Your task to perform on an android device: set the timer Image 0: 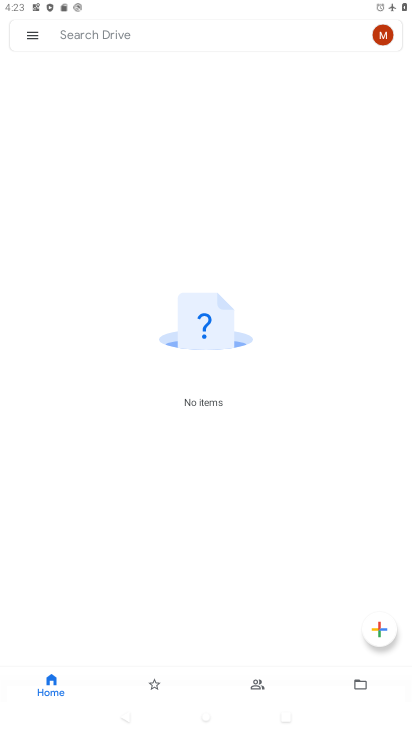
Step 0: press home button
Your task to perform on an android device: set the timer Image 1: 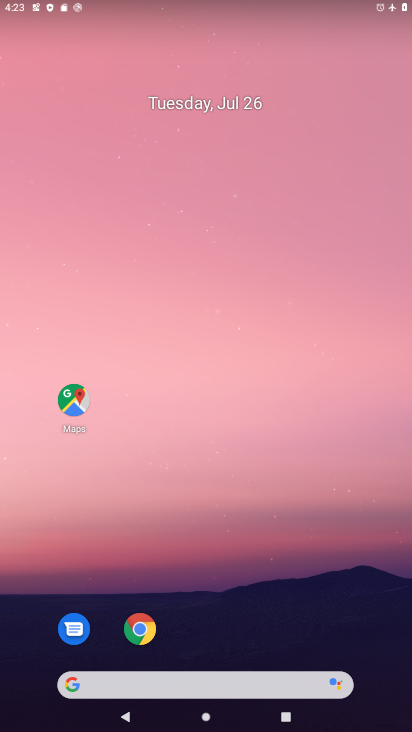
Step 1: drag from (221, 709) to (232, 164)
Your task to perform on an android device: set the timer Image 2: 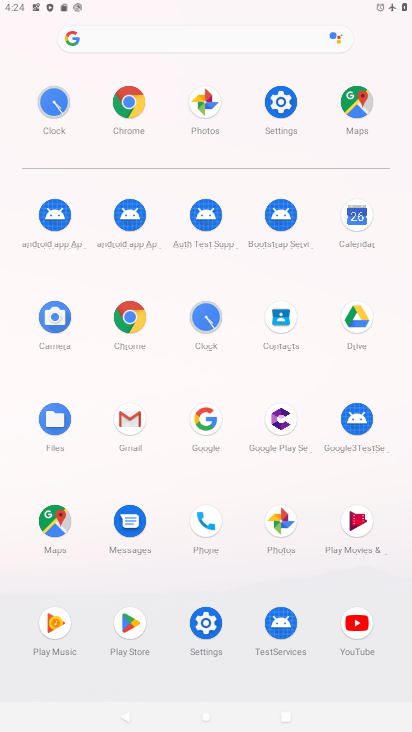
Step 2: click (210, 313)
Your task to perform on an android device: set the timer Image 3: 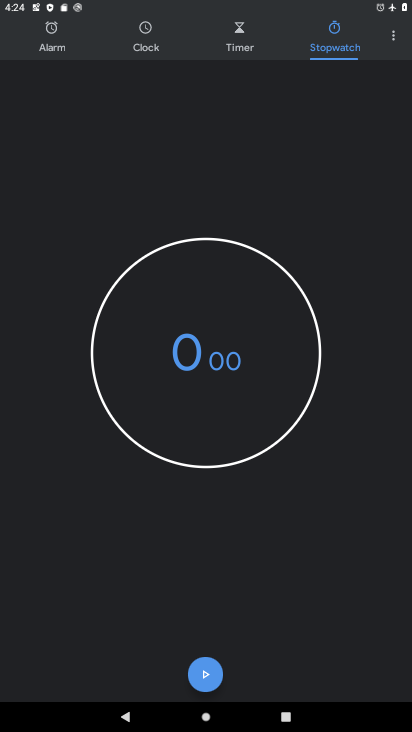
Step 3: click (239, 46)
Your task to perform on an android device: set the timer Image 4: 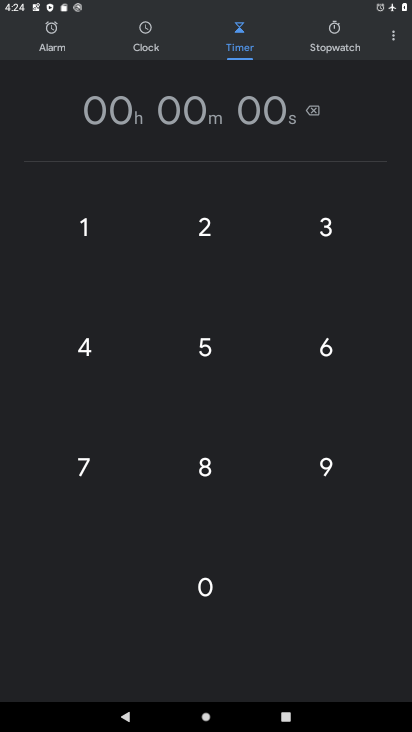
Step 4: click (200, 233)
Your task to perform on an android device: set the timer Image 5: 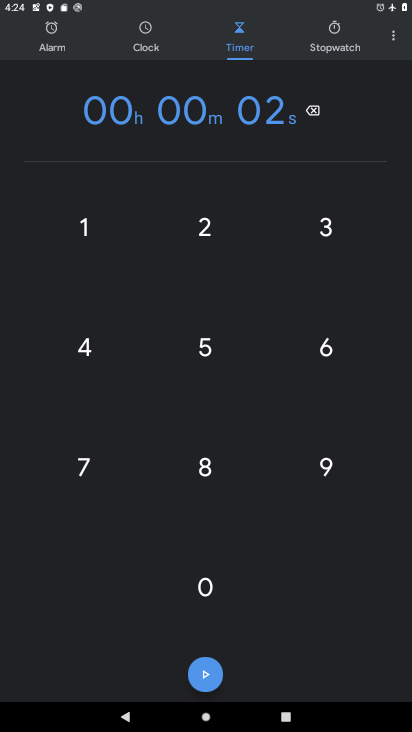
Step 5: click (92, 345)
Your task to perform on an android device: set the timer Image 6: 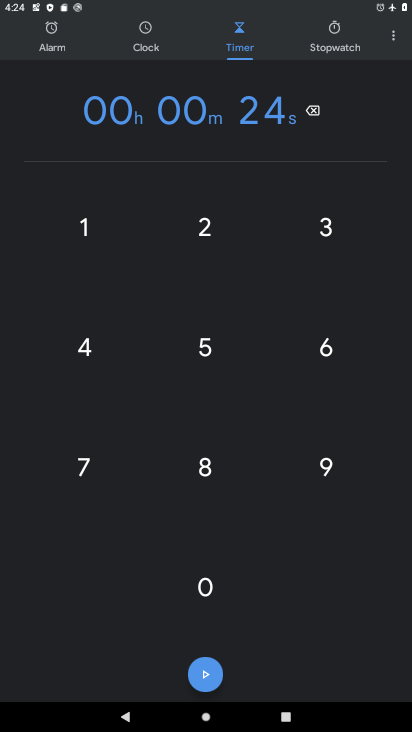
Step 6: click (197, 340)
Your task to perform on an android device: set the timer Image 7: 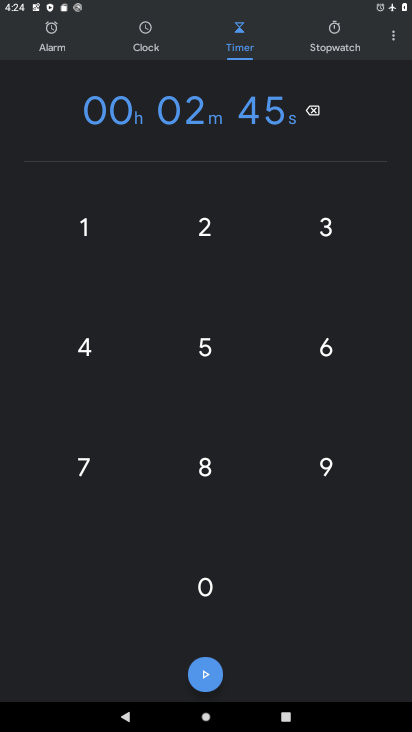
Step 7: click (204, 671)
Your task to perform on an android device: set the timer Image 8: 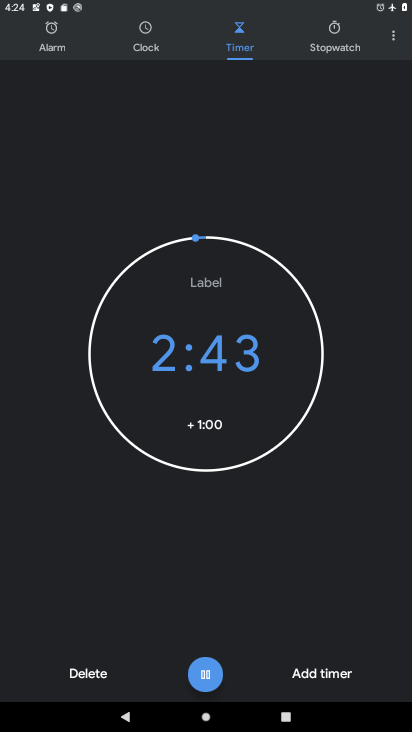
Step 8: task complete